Your task to perform on an android device: Search for seafood restaurants on Google Maps Image 0: 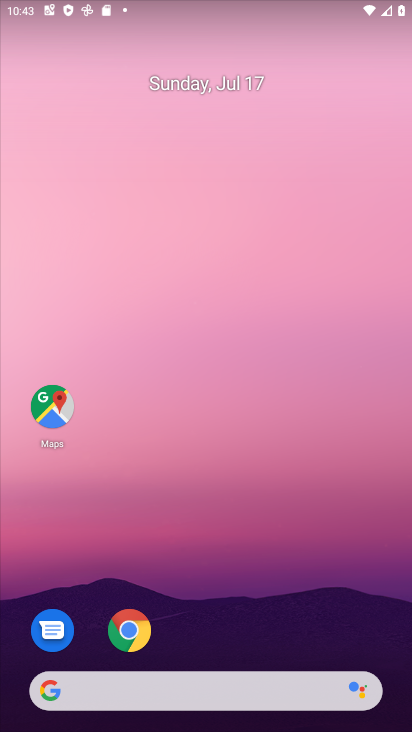
Step 0: drag from (261, 651) to (255, 76)
Your task to perform on an android device: Search for seafood restaurants on Google Maps Image 1: 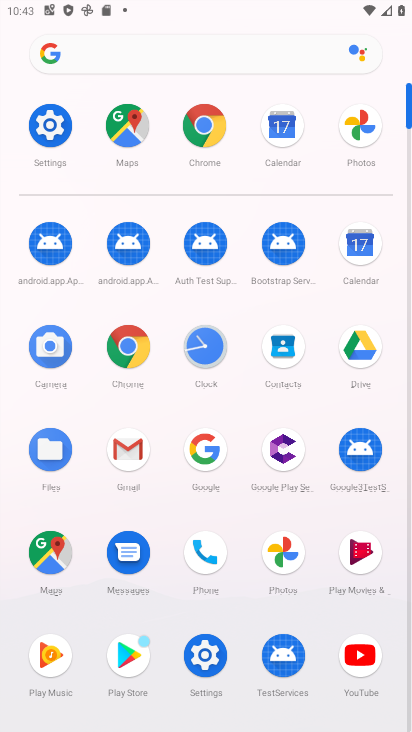
Step 1: click (121, 149)
Your task to perform on an android device: Search for seafood restaurants on Google Maps Image 2: 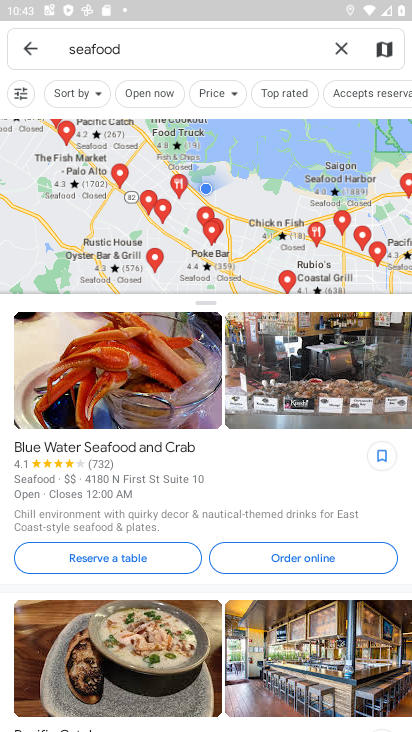
Step 2: task complete